Your task to perform on an android device: add a label to a message in the gmail app Image 0: 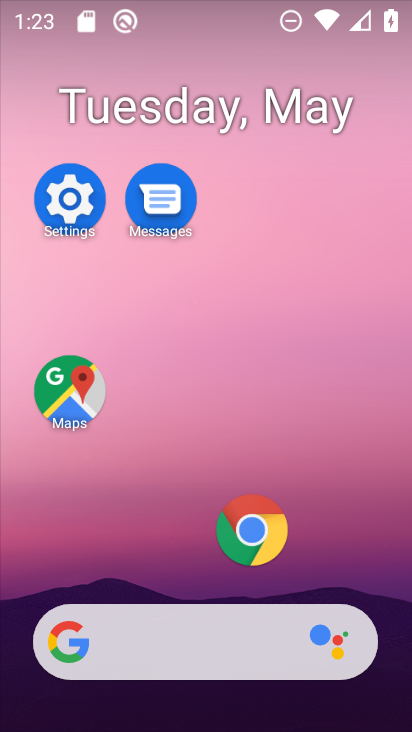
Step 0: drag from (173, 569) to (206, 72)
Your task to perform on an android device: add a label to a message in the gmail app Image 1: 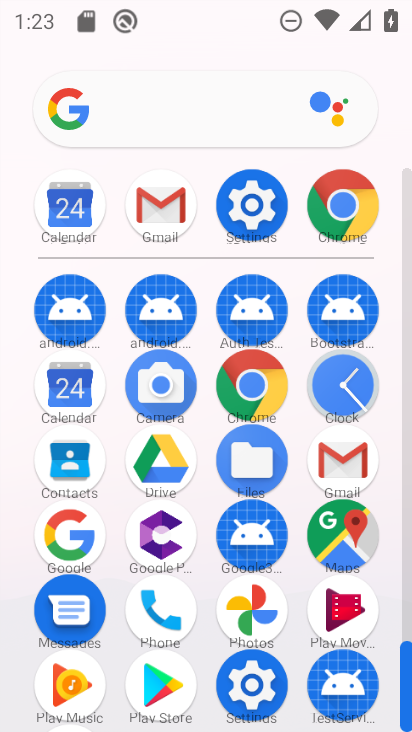
Step 1: click (350, 479)
Your task to perform on an android device: add a label to a message in the gmail app Image 2: 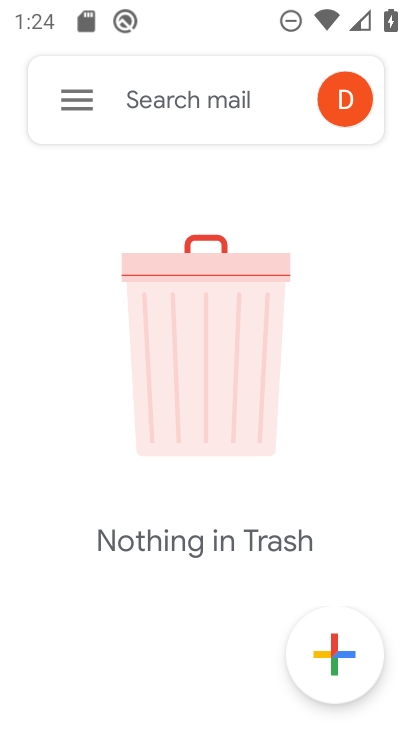
Step 2: click (95, 105)
Your task to perform on an android device: add a label to a message in the gmail app Image 3: 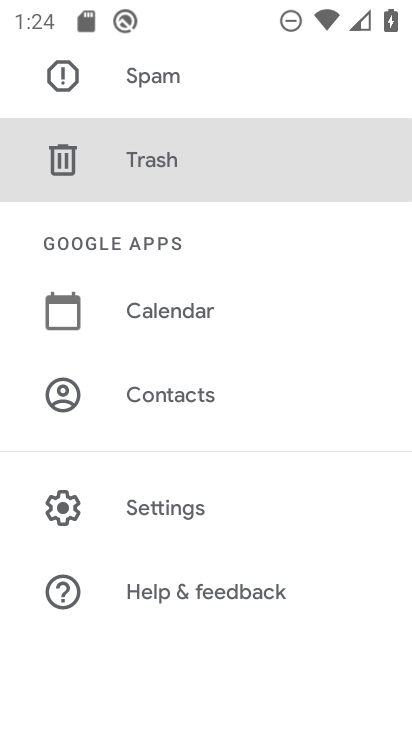
Step 3: drag from (149, 265) to (200, 566)
Your task to perform on an android device: add a label to a message in the gmail app Image 4: 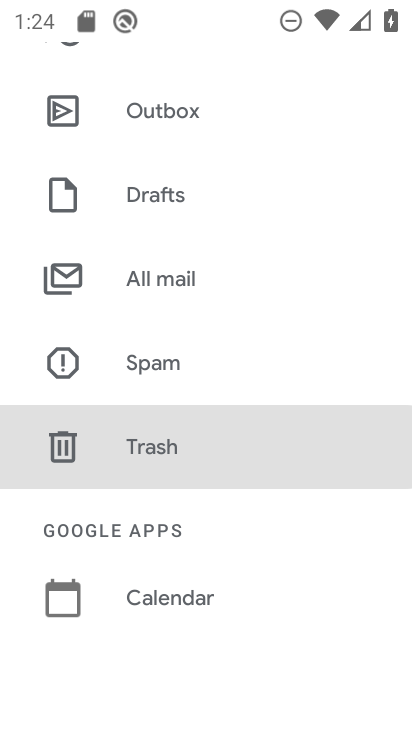
Step 4: click (153, 296)
Your task to perform on an android device: add a label to a message in the gmail app Image 5: 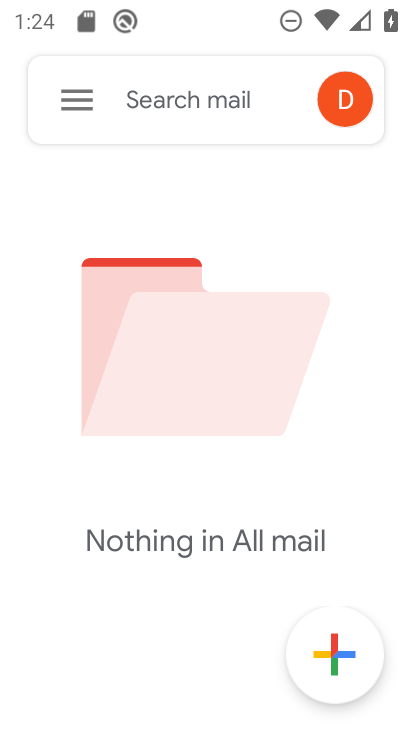
Step 5: task complete